Your task to perform on an android device: Search for sushi restaurants on Maps Image 0: 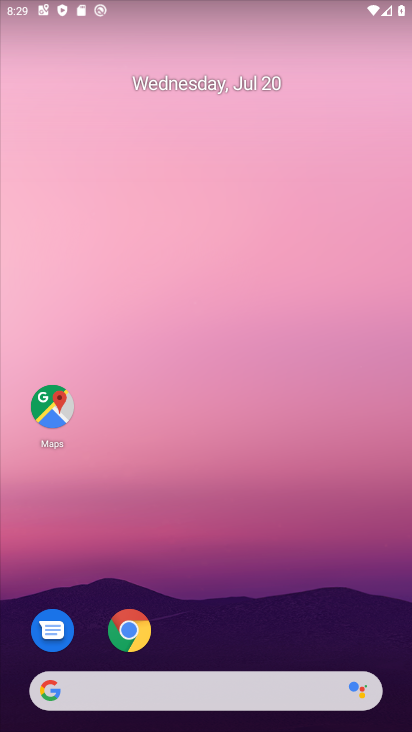
Step 0: click (68, 398)
Your task to perform on an android device: Search for sushi restaurants on Maps Image 1: 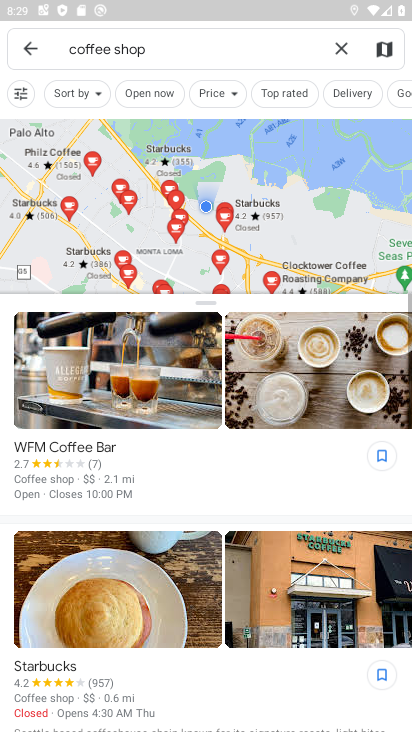
Step 1: click (331, 42)
Your task to perform on an android device: Search for sushi restaurants on Maps Image 2: 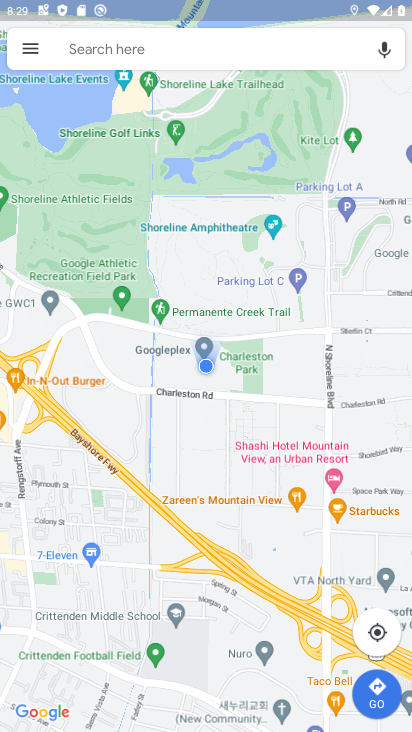
Step 2: click (111, 44)
Your task to perform on an android device: Search for sushi restaurants on Maps Image 3: 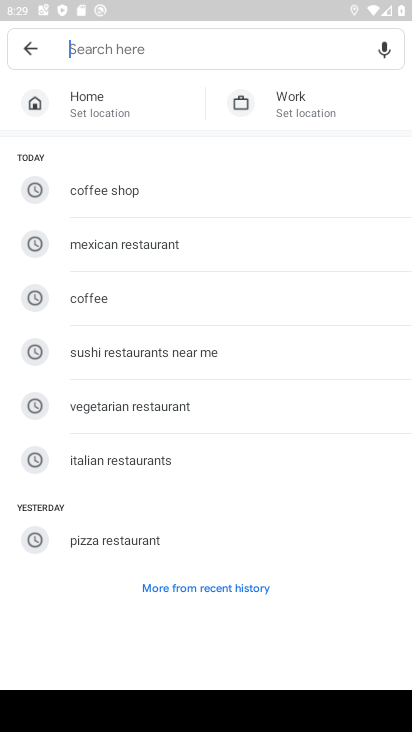
Step 3: type " sushi restaurants"
Your task to perform on an android device: Search for sushi restaurants on Maps Image 4: 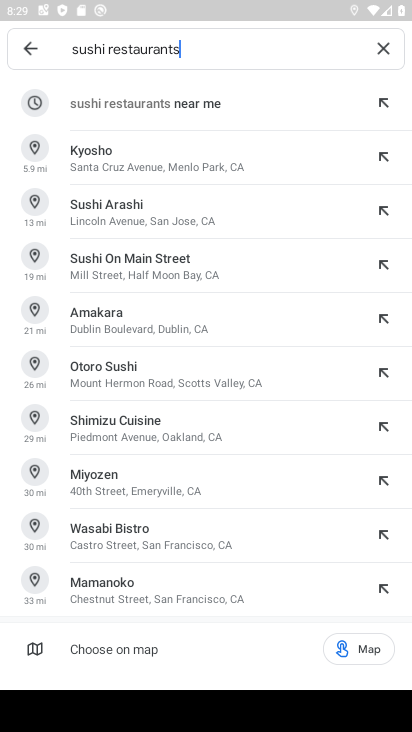
Step 4: click (91, 103)
Your task to perform on an android device: Search for sushi restaurants on Maps Image 5: 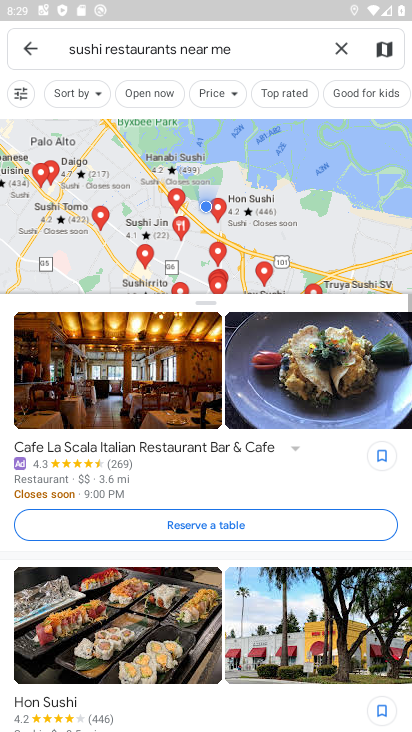
Step 5: task complete